Your task to perform on an android device: Open privacy settings Image 0: 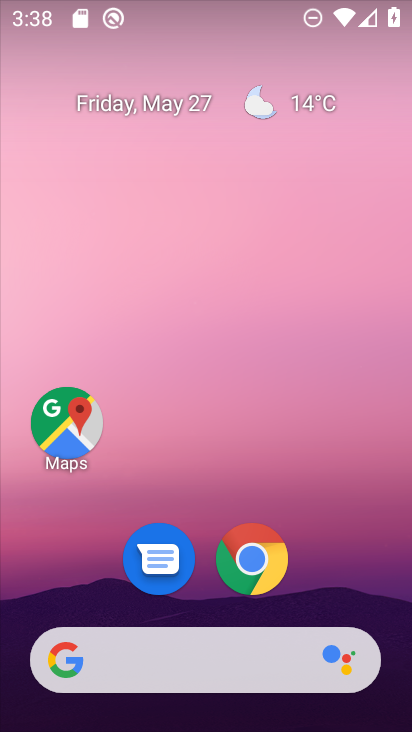
Step 0: drag from (341, 587) to (283, 70)
Your task to perform on an android device: Open privacy settings Image 1: 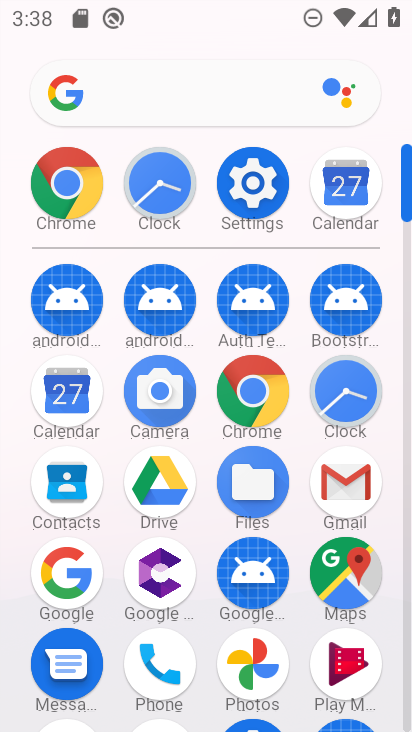
Step 1: click (248, 188)
Your task to perform on an android device: Open privacy settings Image 2: 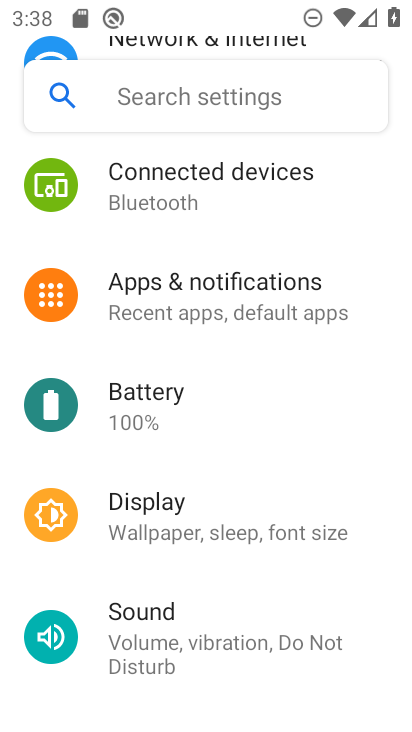
Step 2: drag from (253, 610) to (244, 232)
Your task to perform on an android device: Open privacy settings Image 3: 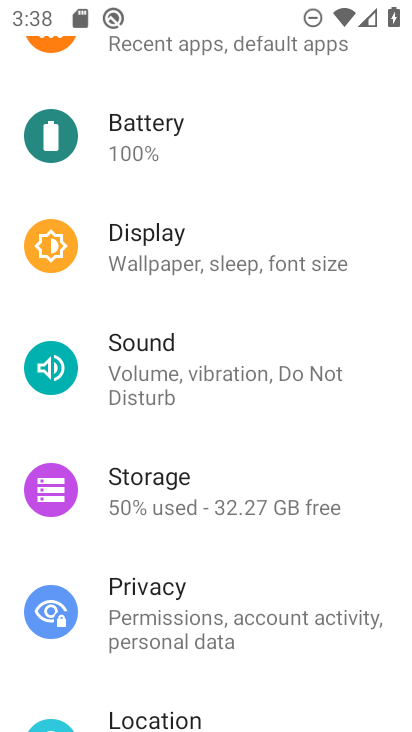
Step 3: click (198, 600)
Your task to perform on an android device: Open privacy settings Image 4: 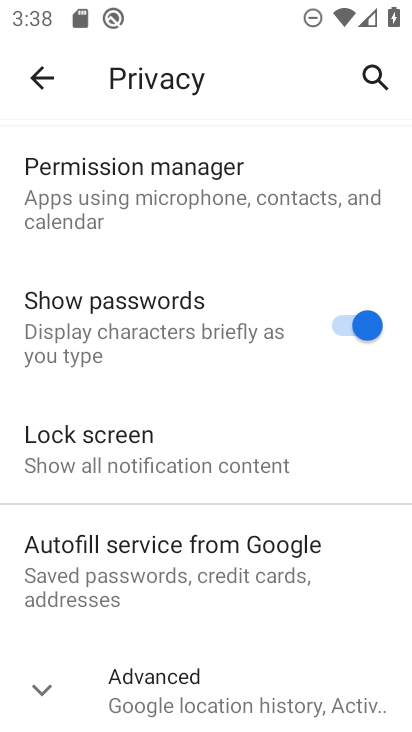
Step 4: task complete